Your task to perform on an android device: Go to ESPN.com Image 0: 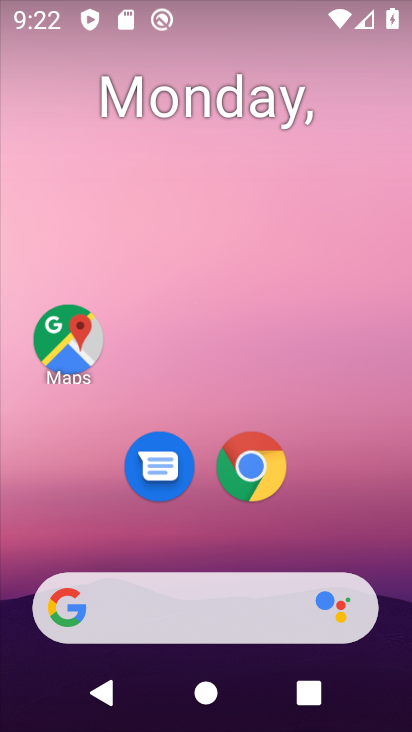
Step 0: click (245, 447)
Your task to perform on an android device: Go to ESPN.com Image 1: 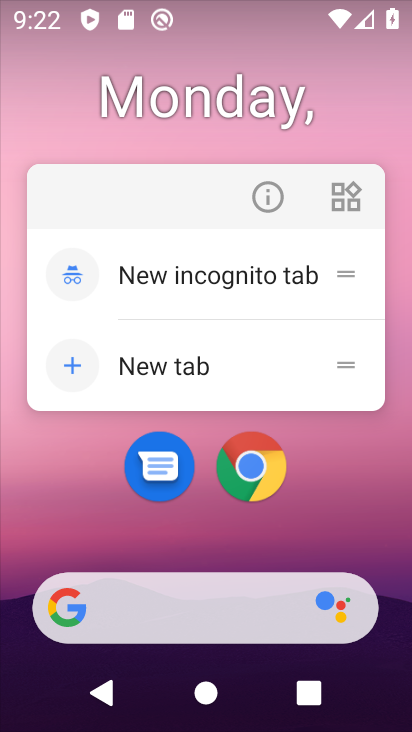
Step 1: click (263, 467)
Your task to perform on an android device: Go to ESPN.com Image 2: 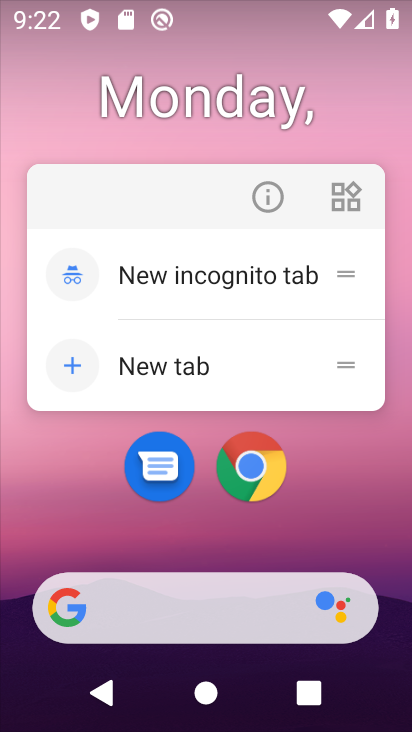
Step 2: click (329, 504)
Your task to perform on an android device: Go to ESPN.com Image 3: 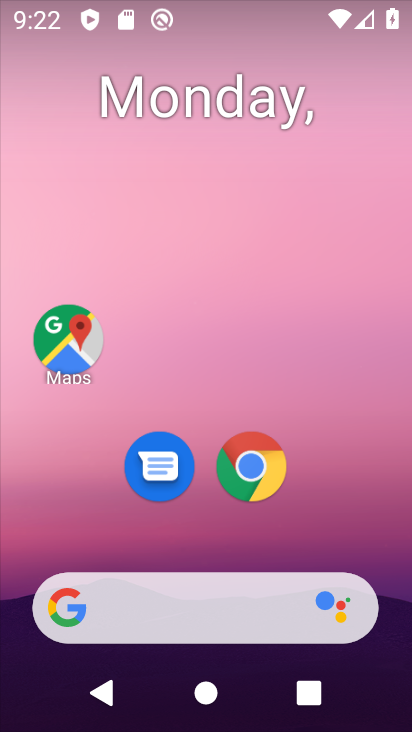
Step 3: drag from (331, 525) to (328, 88)
Your task to perform on an android device: Go to ESPN.com Image 4: 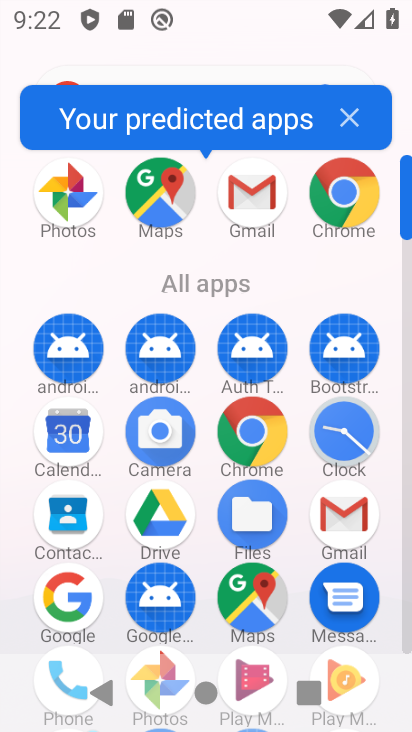
Step 4: click (258, 431)
Your task to perform on an android device: Go to ESPN.com Image 5: 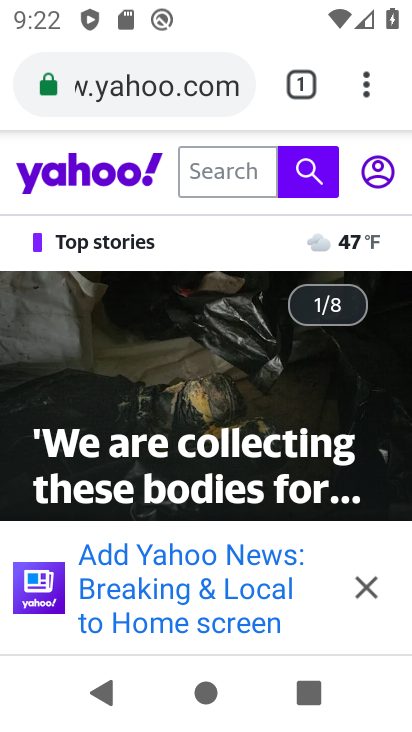
Step 5: click (144, 87)
Your task to perform on an android device: Go to ESPN.com Image 6: 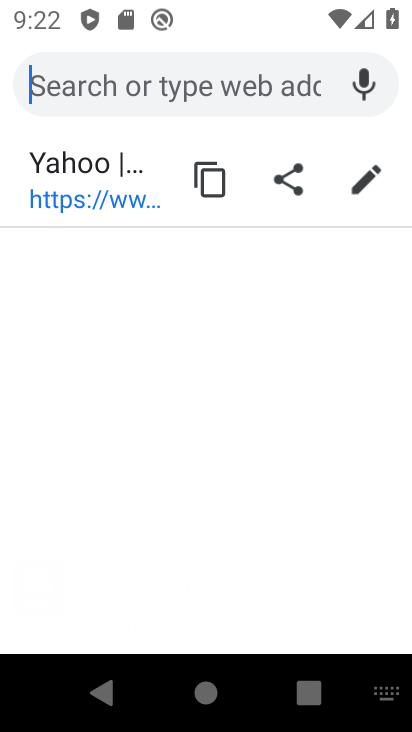
Step 6: type "ESPN.com"
Your task to perform on an android device: Go to ESPN.com Image 7: 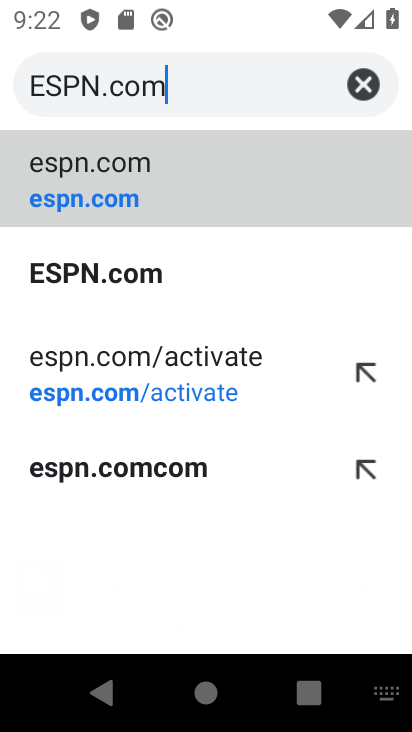
Step 7: click (122, 205)
Your task to perform on an android device: Go to ESPN.com Image 8: 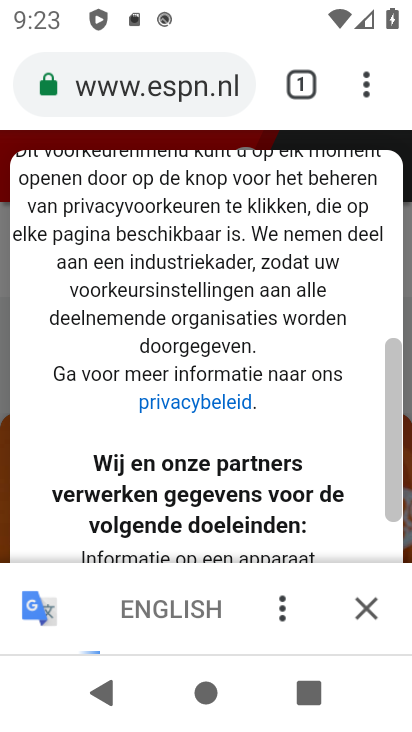
Step 8: task complete